Your task to perform on an android device: turn on the 12-hour format for clock Image 0: 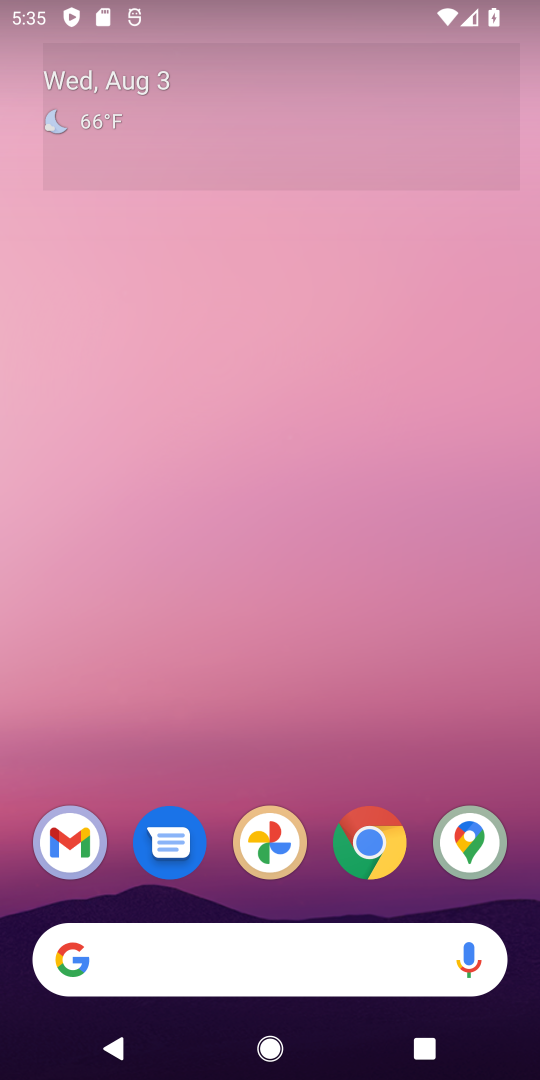
Step 0: drag from (250, 455) to (278, 37)
Your task to perform on an android device: turn on the 12-hour format for clock Image 1: 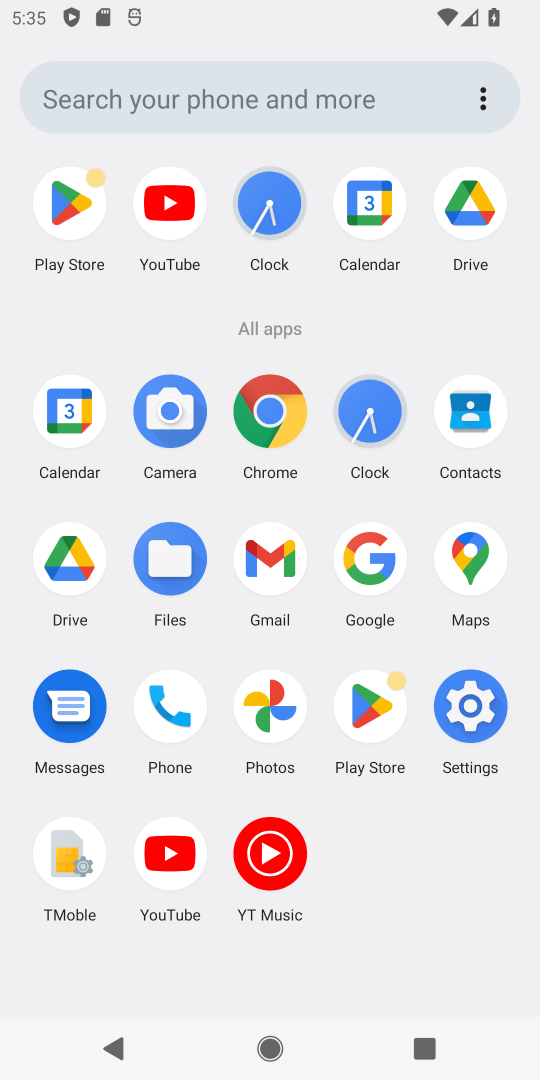
Step 1: click (389, 452)
Your task to perform on an android device: turn on the 12-hour format for clock Image 2: 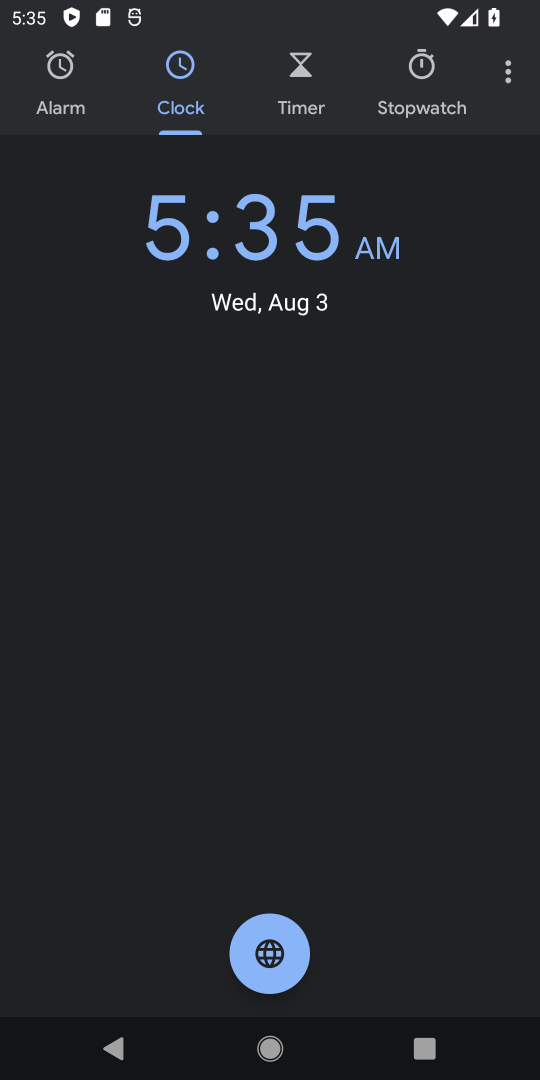
Step 2: click (510, 65)
Your task to perform on an android device: turn on the 12-hour format for clock Image 3: 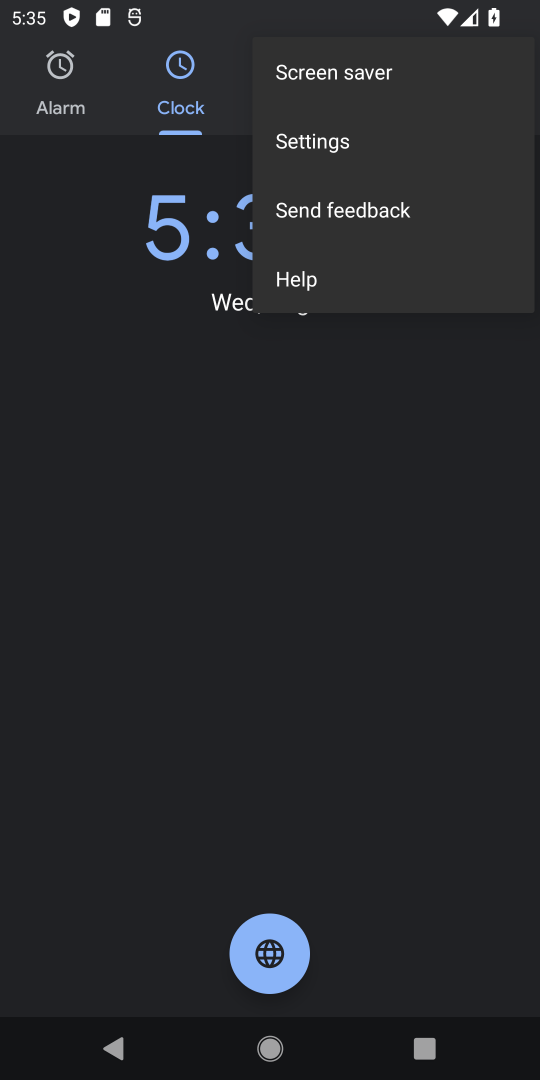
Step 3: click (333, 144)
Your task to perform on an android device: turn on the 12-hour format for clock Image 4: 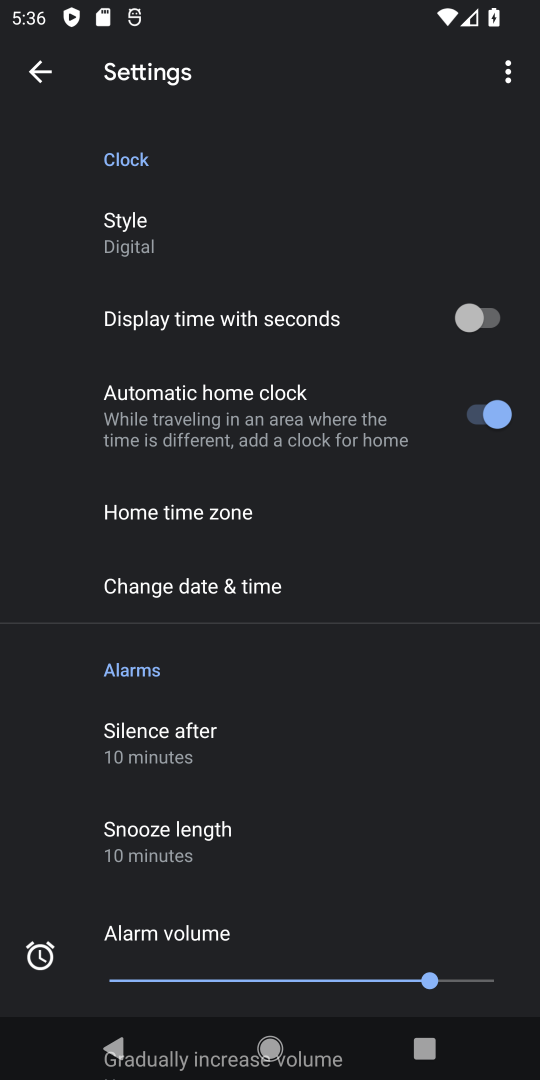
Step 4: click (236, 596)
Your task to perform on an android device: turn on the 12-hour format for clock Image 5: 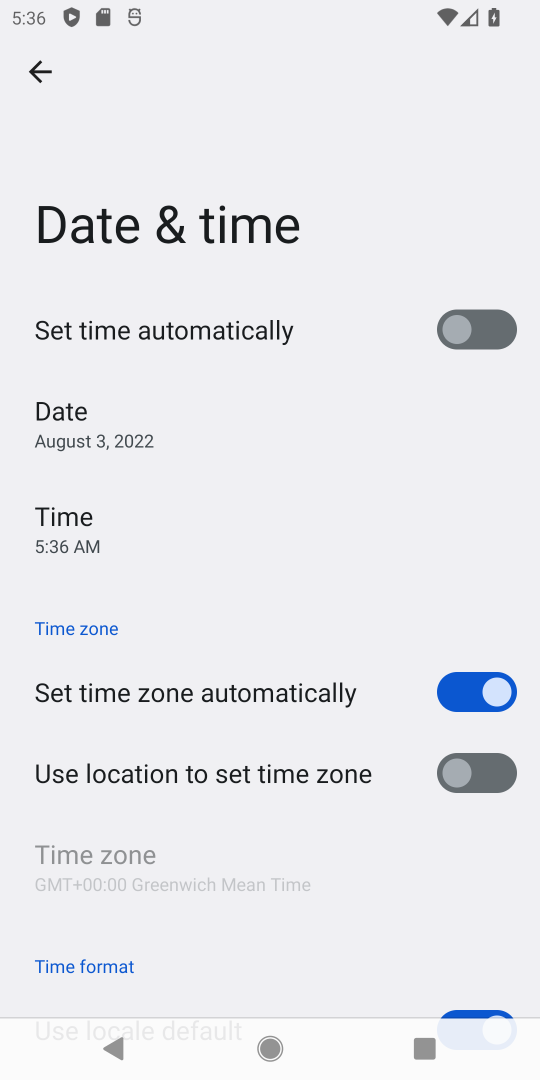
Step 5: task complete